Your task to perform on an android device: What's the weather? Image 0: 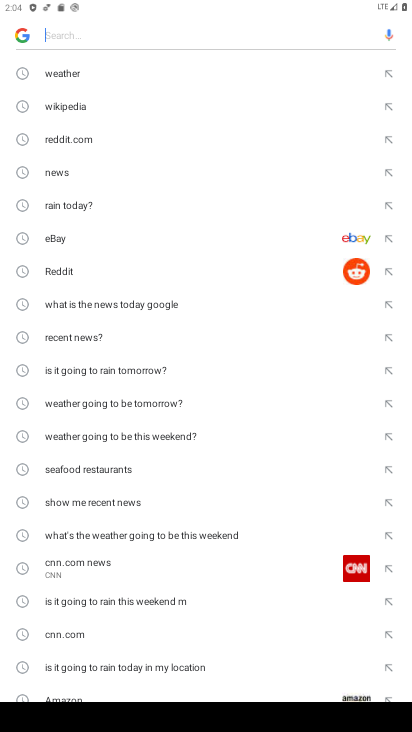
Step 0: press home button
Your task to perform on an android device: What's the weather? Image 1: 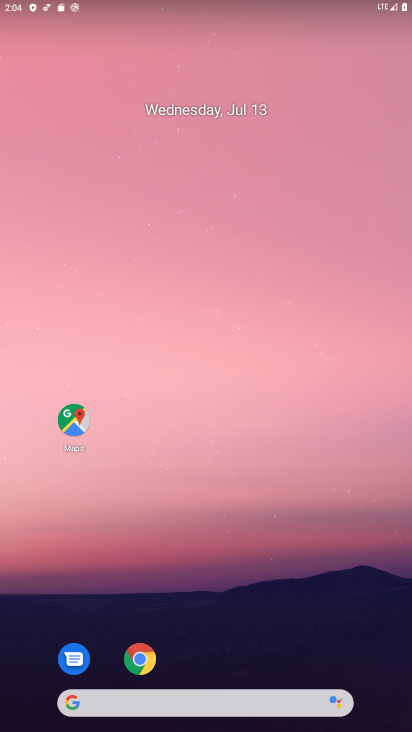
Step 1: drag from (9, 286) to (392, 277)
Your task to perform on an android device: What's the weather? Image 2: 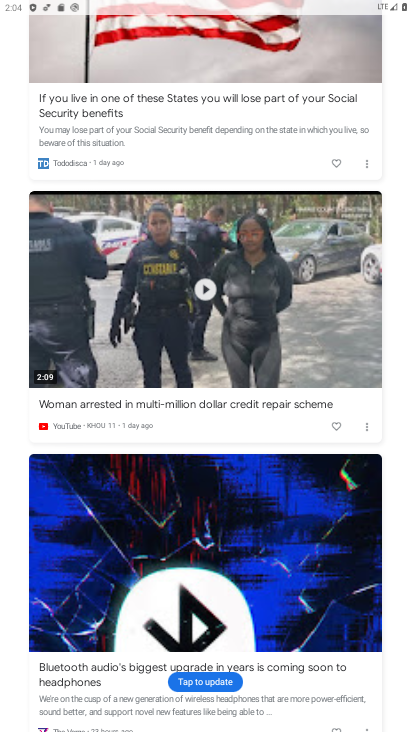
Step 2: drag from (168, 186) to (170, 592)
Your task to perform on an android device: What's the weather? Image 3: 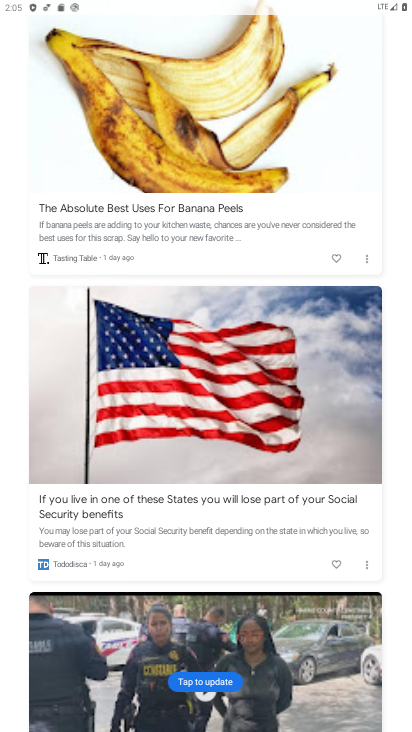
Step 3: click (208, 684)
Your task to perform on an android device: What's the weather? Image 4: 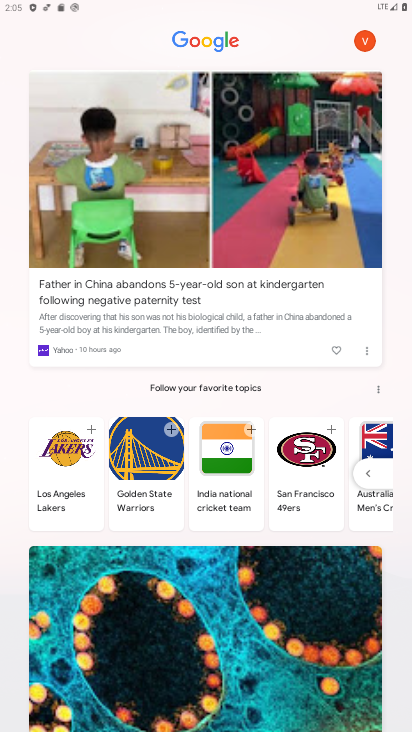
Step 4: drag from (398, 531) to (6, 516)
Your task to perform on an android device: What's the weather? Image 5: 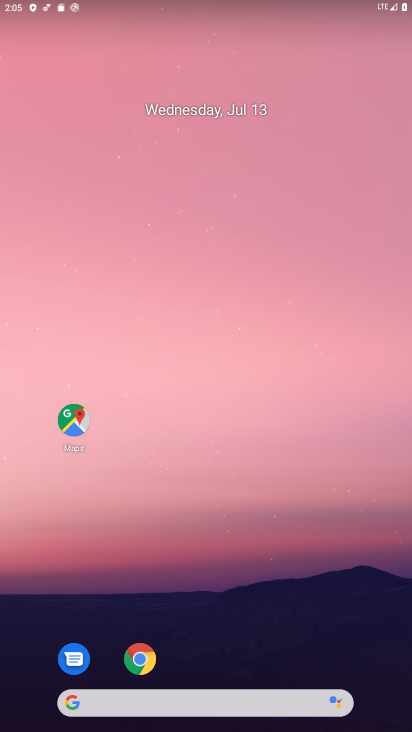
Step 5: click (123, 702)
Your task to perform on an android device: What's the weather? Image 6: 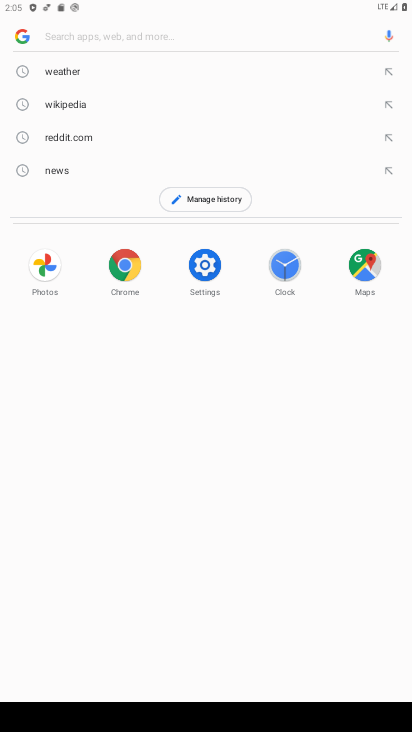
Step 6: click (61, 70)
Your task to perform on an android device: What's the weather? Image 7: 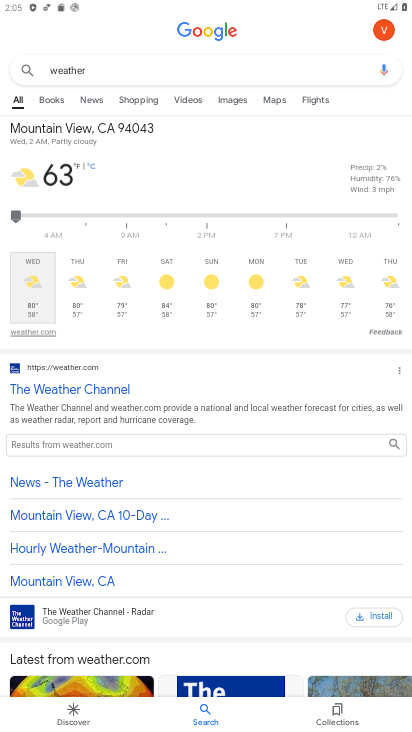
Step 7: task complete